Your task to perform on an android device: Go to Google Image 0: 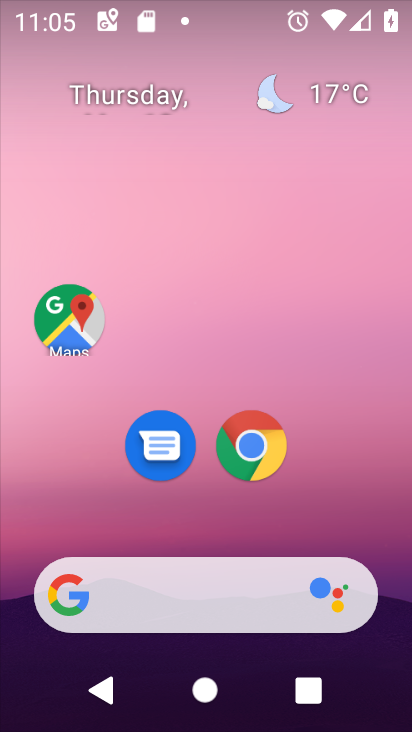
Step 0: drag from (185, 418) to (228, 200)
Your task to perform on an android device: Go to Google Image 1: 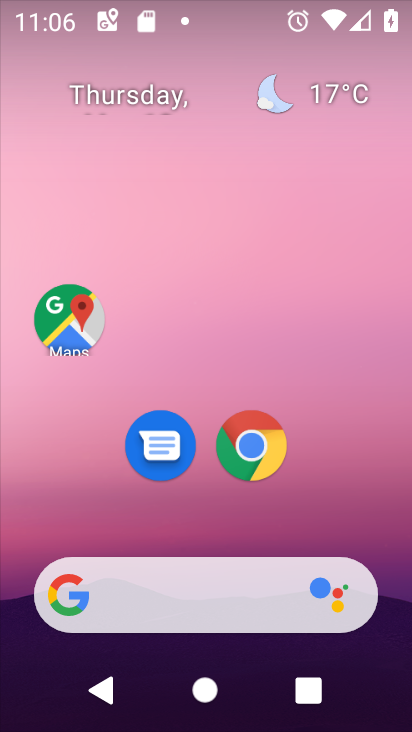
Step 1: click (76, 630)
Your task to perform on an android device: Go to Google Image 2: 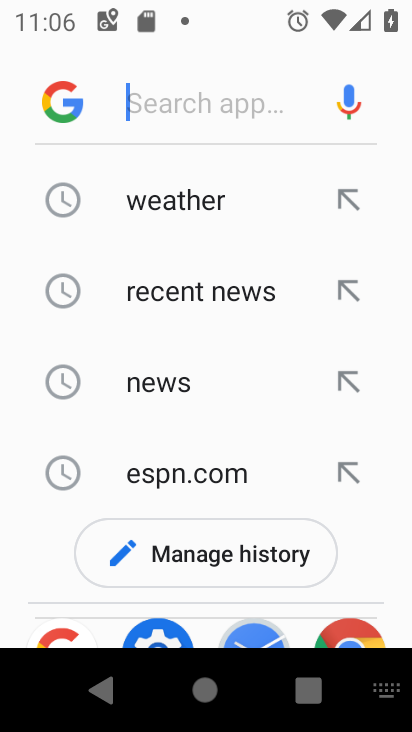
Step 2: task complete